Your task to perform on an android device: turn on data saver in the chrome app Image 0: 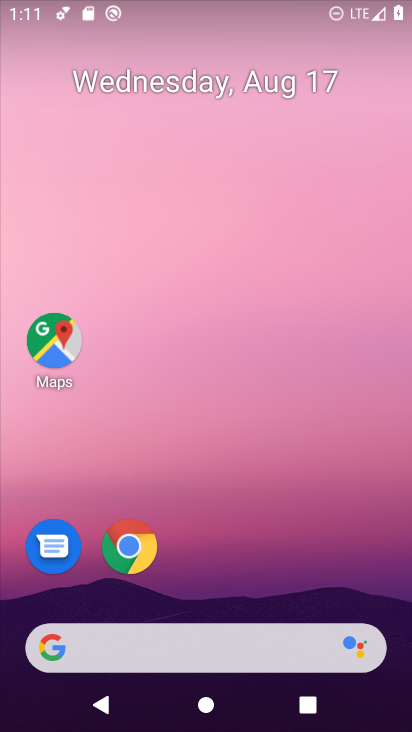
Step 0: click (129, 547)
Your task to perform on an android device: turn on data saver in the chrome app Image 1: 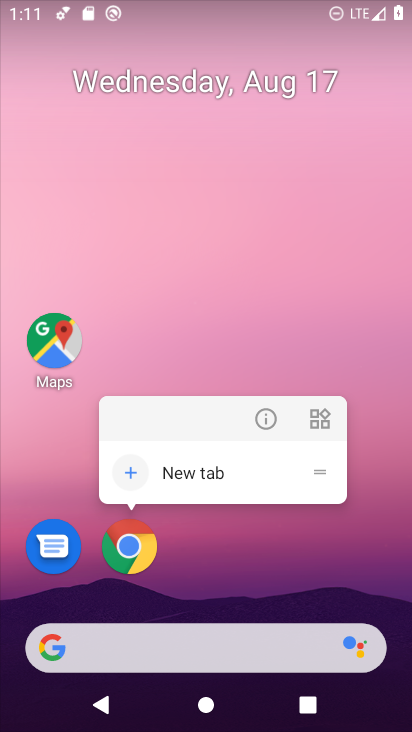
Step 1: click (133, 547)
Your task to perform on an android device: turn on data saver in the chrome app Image 2: 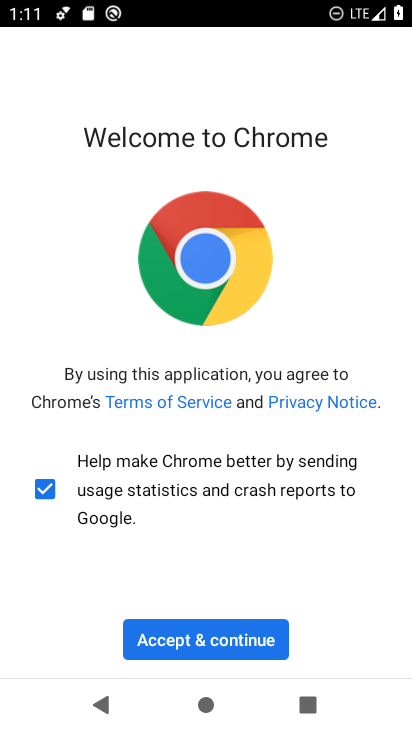
Step 2: click (211, 637)
Your task to perform on an android device: turn on data saver in the chrome app Image 3: 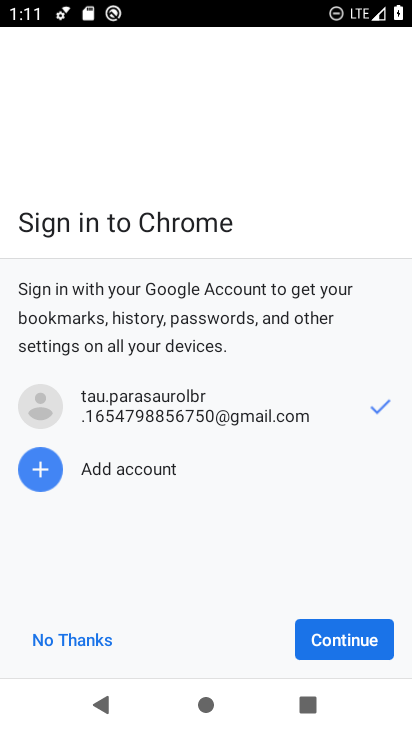
Step 3: click (346, 640)
Your task to perform on an android device: turn on data saver in the chrome app Image 4: 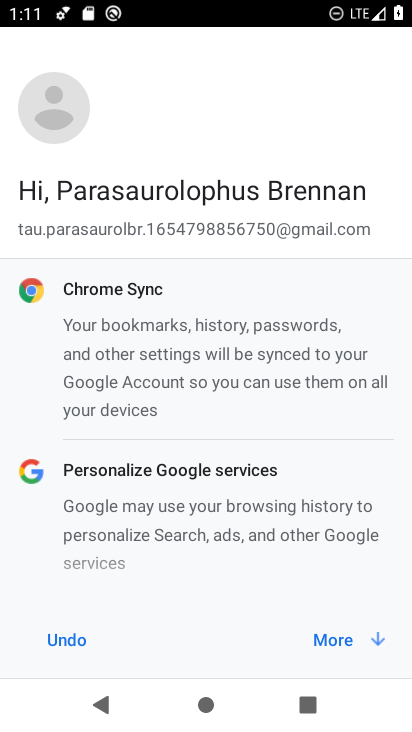
Step 4: click (346, 640)
Your task to perform on an android device: turn on data saver in the chrome app Image 5: 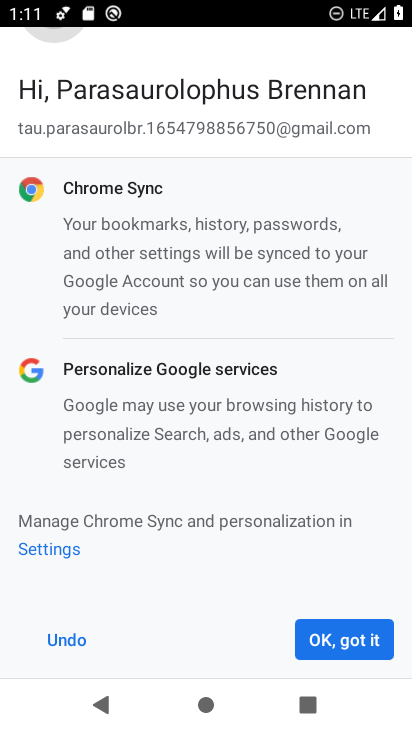
Step 5: click (346, 640)
Your task to perform on an android device: turn on data saver in the chrome app Image 6: 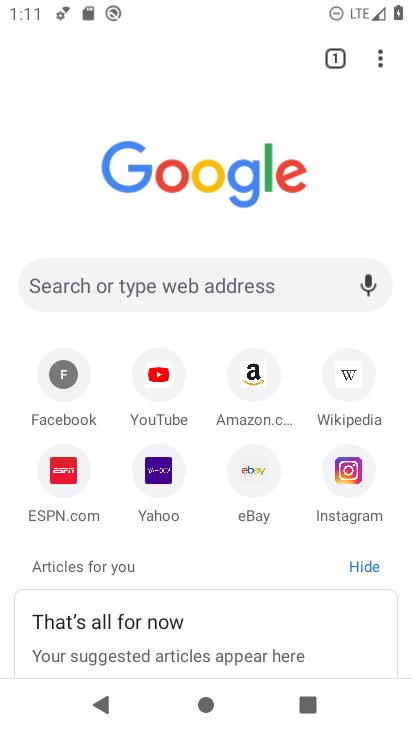
Step 6: click (379, 55)
Your task to perform on an android device: turn on data saver in the chrome app Image 7: 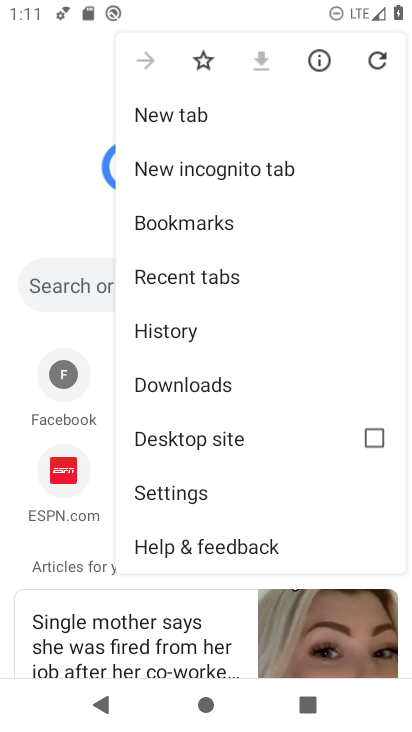
Step 7: click (189, 494)
Your task to perform on an android device: turn on data saver in the chrome app Image 8: 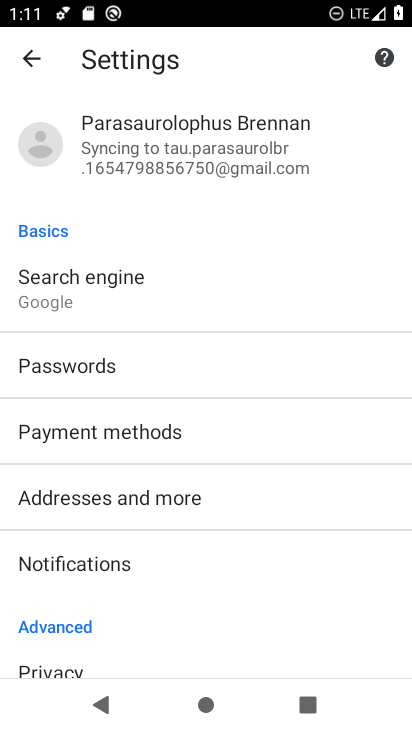
Step 8: drag from (222, 575) to (179, 245)
Your task to perform on an android device: turn on data saver in the chrome app Image 9: 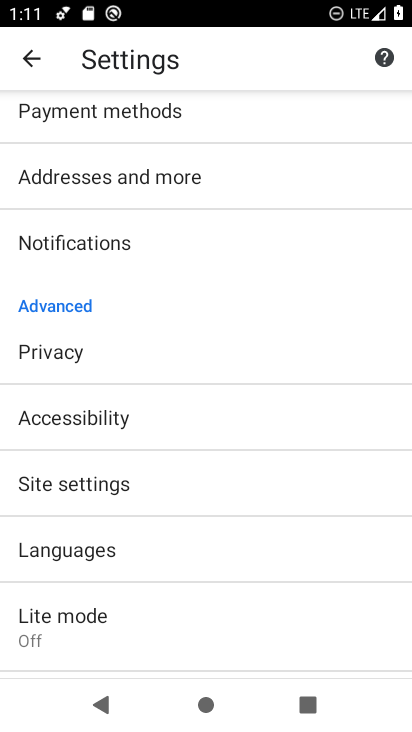
Step 9: click (91, 616)
Your task to perform on an android device: turn on data saver in the chrome app Image 10: 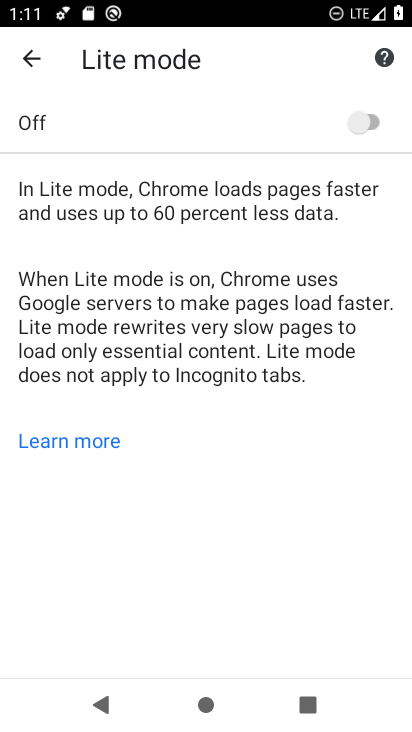
Step 10: click (365, 117)
Your task to perform on an android device: turn on data saver in the chrome app Image 11: 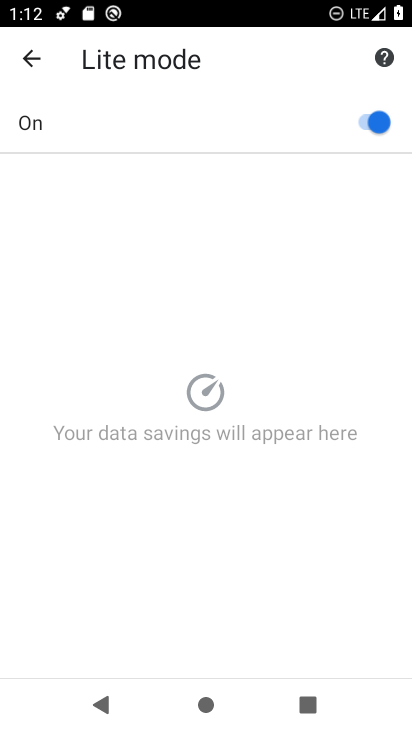
Step 11: task complete